Your task to perform on an android device: Find coffee shops on Maps Image 0: 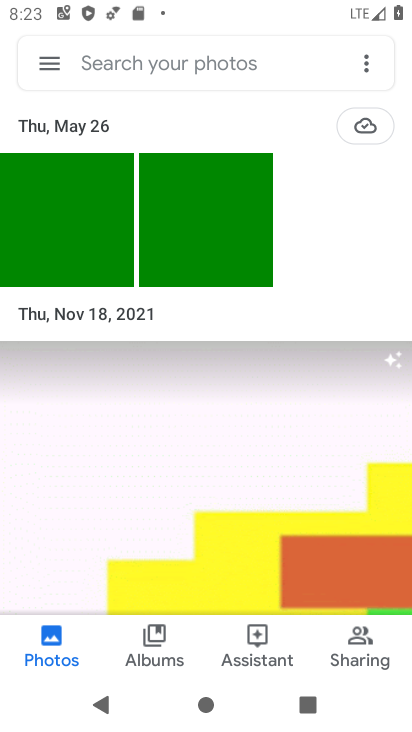
Step 0: press home button
Your task to perform on an android device: Find coffee shops on Maps Image 1: 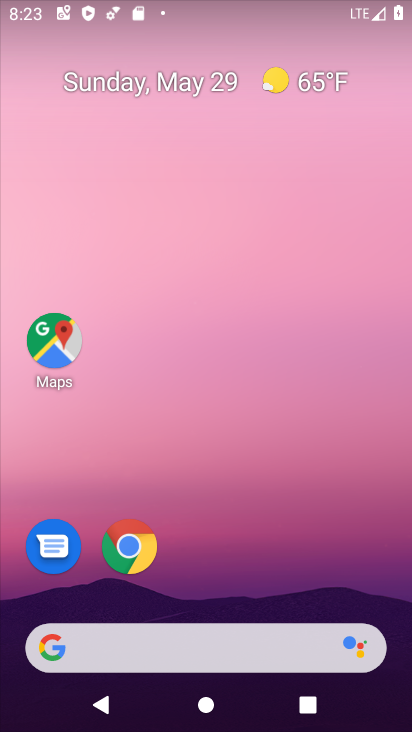
Step 1: click (54, 353)
Your task to perform on an android device: Find coffee shops on Maps Image 2: 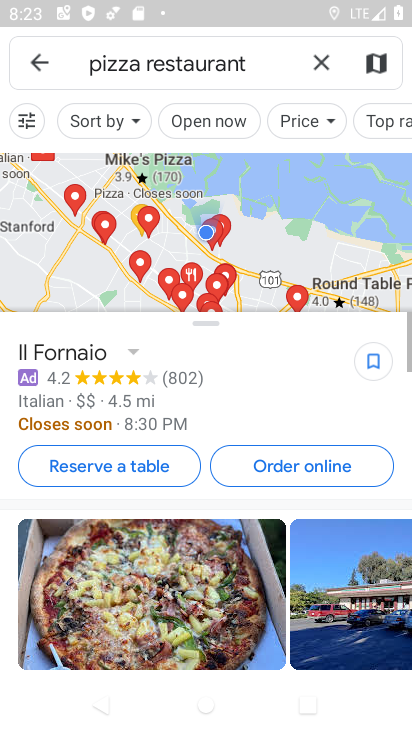
Step 2: click (318, 66)
Your task to perform on an android device: Find coffee shops on Maps Image 3: 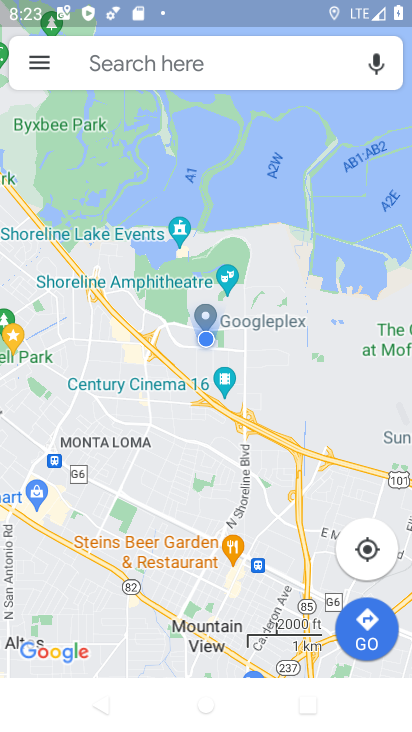
Step 3: click (177, 56)
Your task to perform on an android device: Find coffee shops on Maps Image 4: 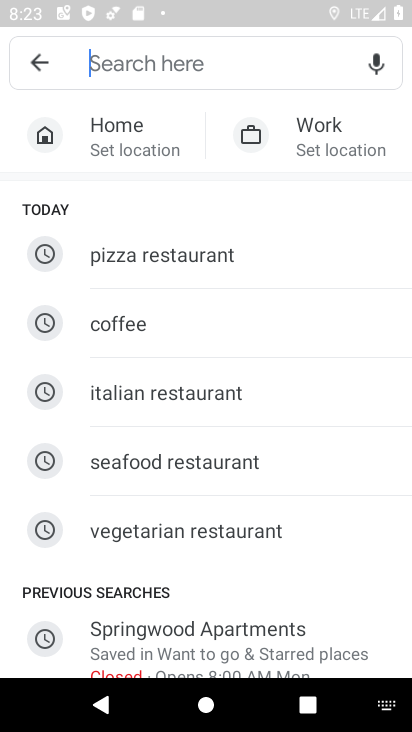
Step 4: click (155, 325)
Your task to perform on an android device: Find coffee shops on Maps Image 5: 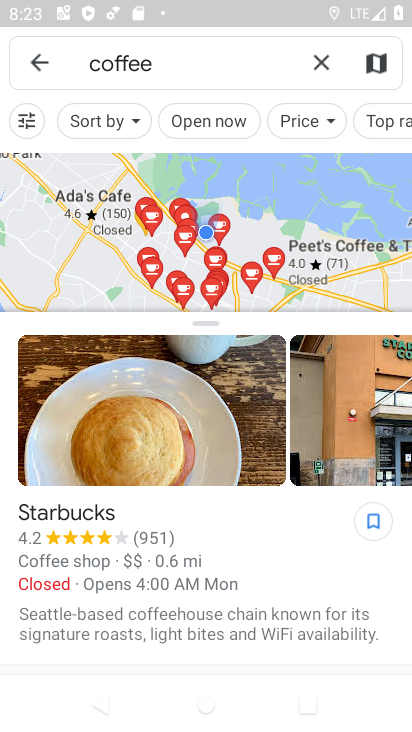
Step 5: task complete